Your task to perform on an android device: Open the web browser Image 0: 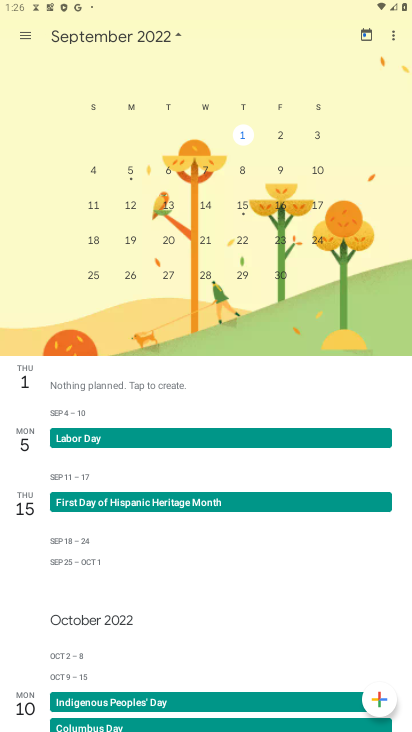
Step 0: press home button
Your task to perform on an android device: Open the web browser Image 1: 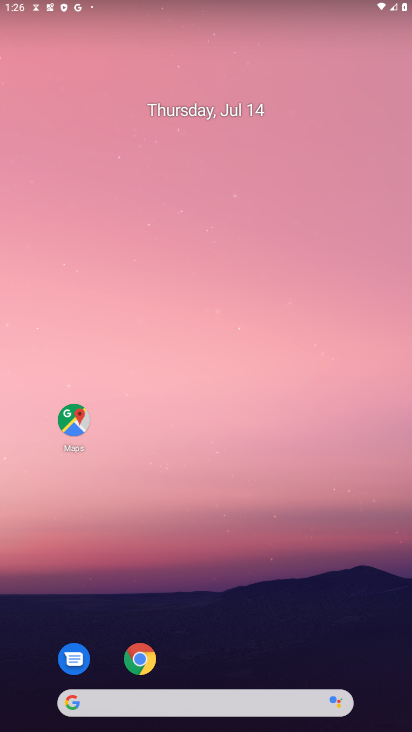
Step 1: drag from (61, 633) to (412, 21)
Your task to perform on an android device: Open the web browser Image 2: 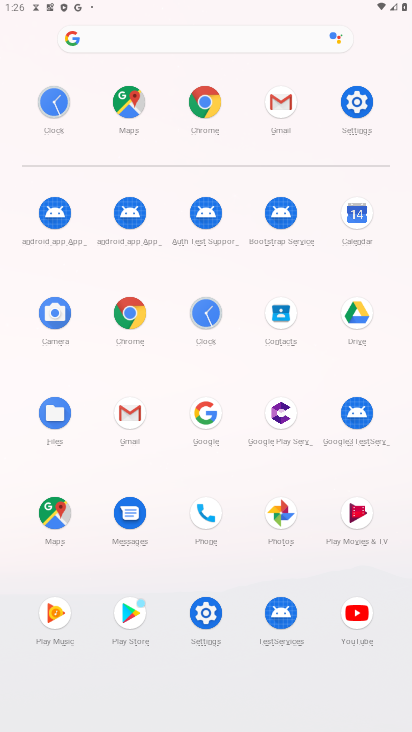
Step 2: drag from (390, 459) to (0, 449)
Your task to perform on an android device: Open the web browser Image 3: 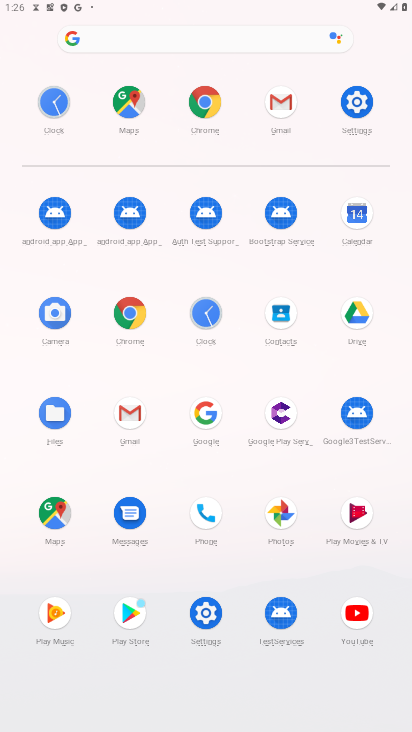
Step 3: drag from (322, 390) to (21, 367)
Your task to perform on an android device: Open the web browser Image 4: 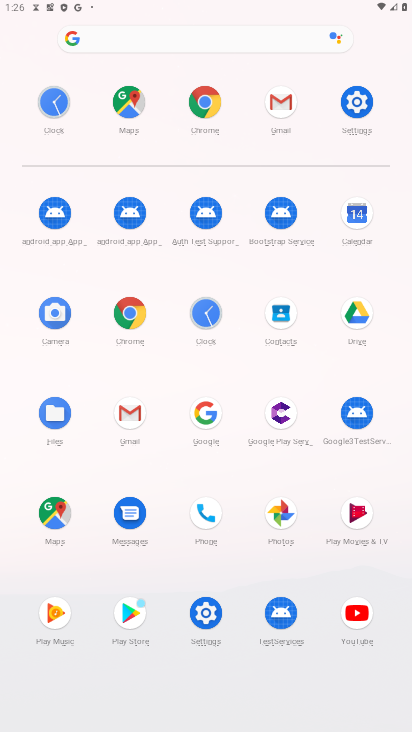
Step 4: drag from (30, 369) to (407, 308)
Your task to perform on an android device: Open the web browser Image 5: 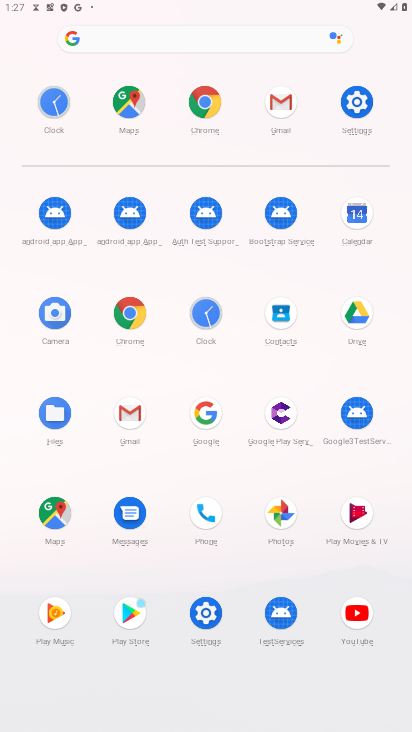
Step 5: click (98, 34)
Your task to perform on an android device: Open the web browser Image 6: 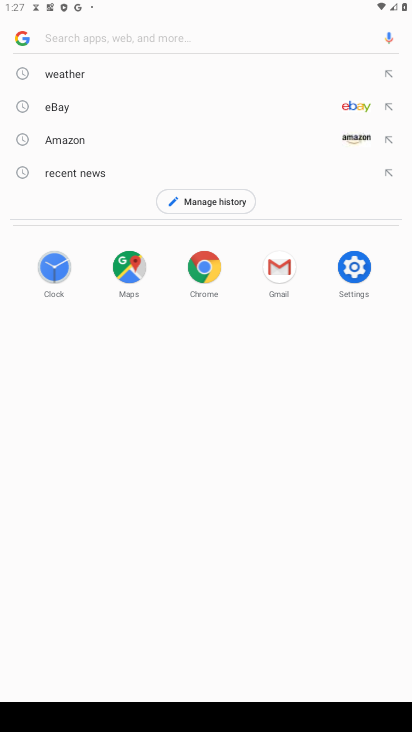
Step 6: task complete